Your task to perform on an android device: Open eBay Image 0: 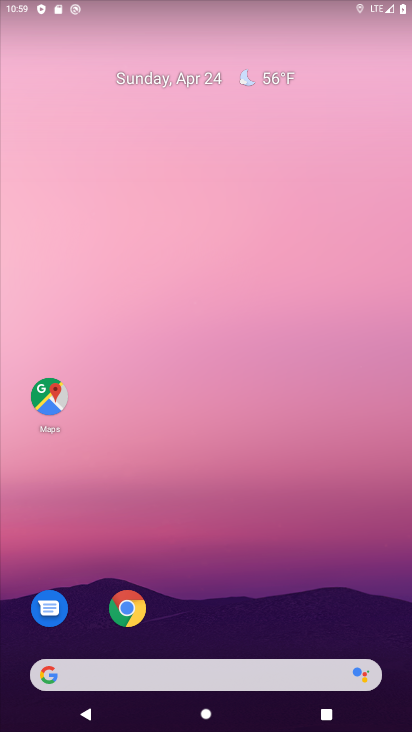
Step 0: drag from (205, 647) to (216, 6)
Your task to perform on an android device: Open eBay Image 1: 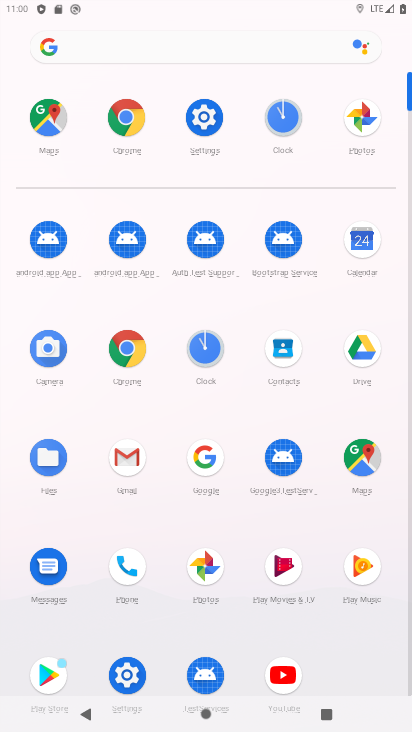
Step 1: click (125, 350)
Your task to perform on an android device: Open eBay Image 2: 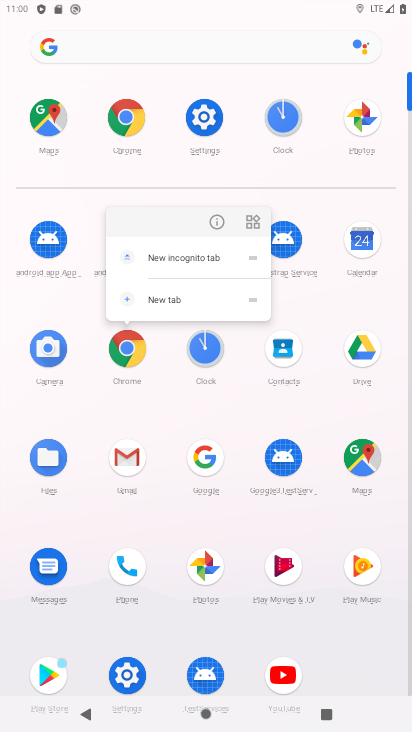
Step 2: click (123, 351)
Your task to perform on an android device: Open eBay Image 3: 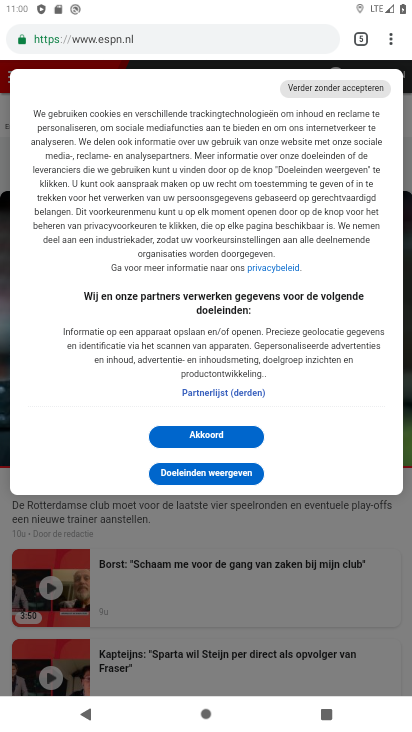
Step 3: click (353, 34)
Your task to perform on an android device: Open eBay Image 4: 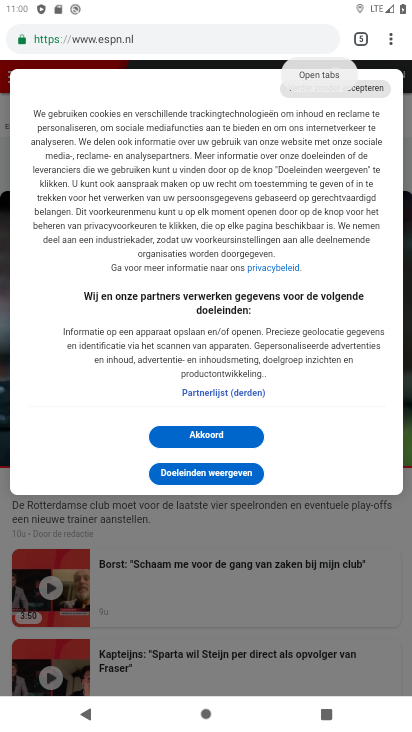
Step 4: click (366, 36)
Your task to perform on an android device: Open eBay Image 5: 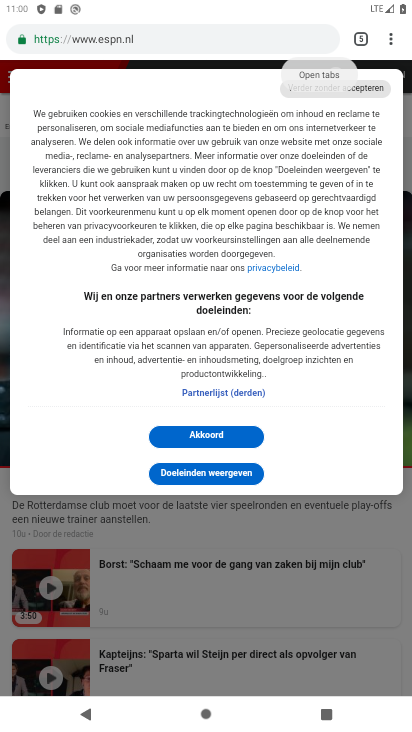
Step 5: click (368, 49)
Your task to perform on an android device: Open eBay Image 6: 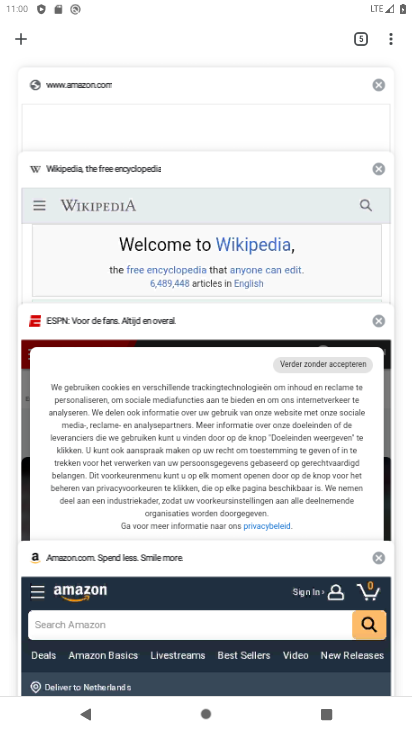
Step 6: click (20, 39)
Your task to perform on an android device: Open eBay Image 7: 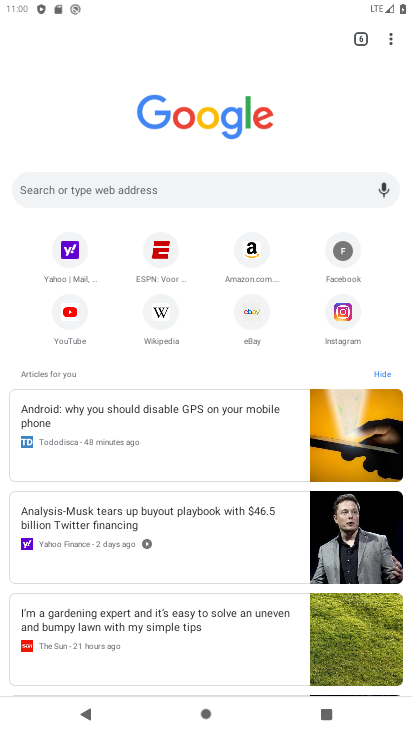
Step 7: click (251, 315)
Your task to perform on an android device: Open eBay Image 8: 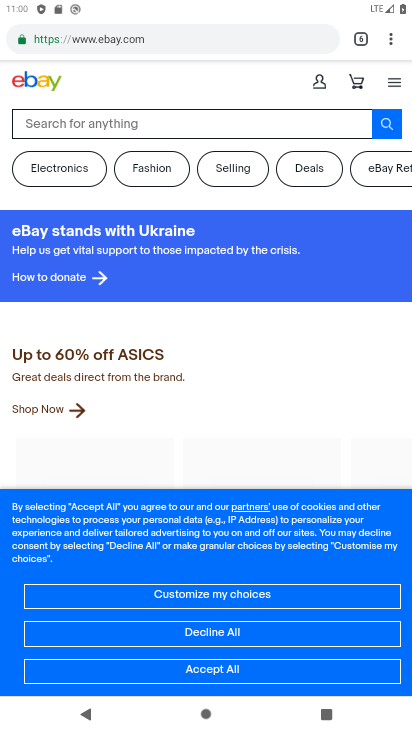
Step 8: task complete